Your task to perform on an android device: check the backup settings in the google photos Image 0: 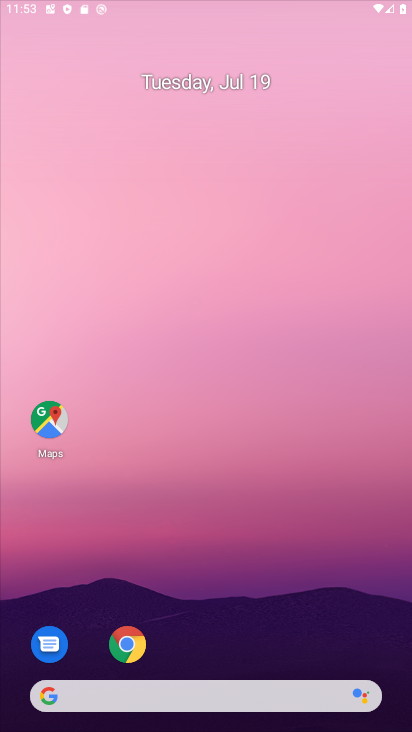
Step 0: press home button
Your task to perform on an android device: check the backup settings in the google photos Image 1: 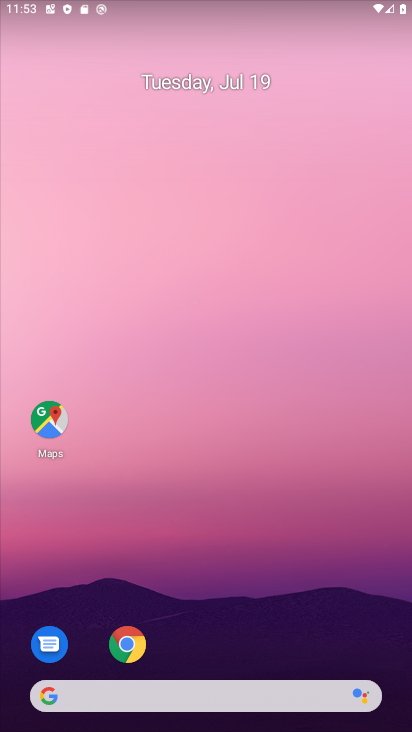
Step 1: drag from (250, 623) to (248, 90)
Your task to perform on an android device: check the backup settings in the google photos Image 2: 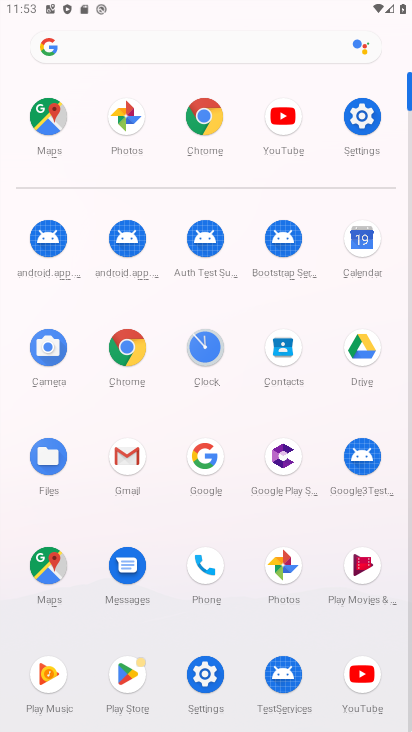
Step 2: click (282, 557)
Your task to perform on an android device: check the backup settings in the google photos Image 3: 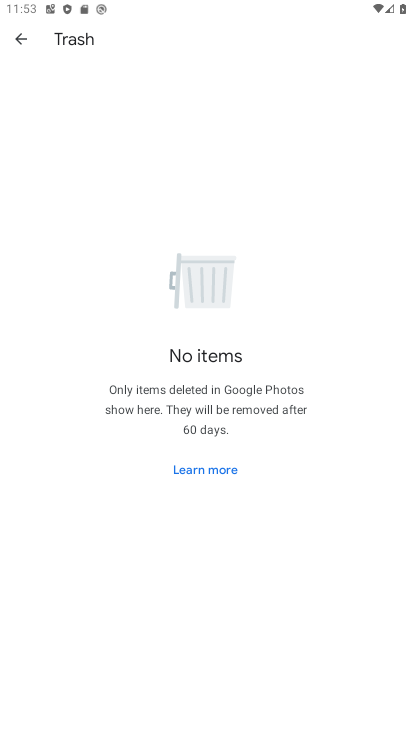
Step 3: click (16, 42)
Your task to perform on an android device: check the backup settings in the google photos Image 4: 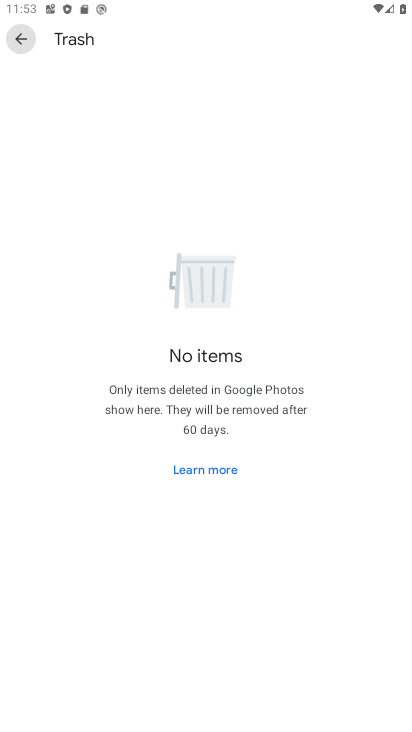
Step 4: click (16, 42)
Your task to perform on an android device: check the backup settings in the google photos Image 5: 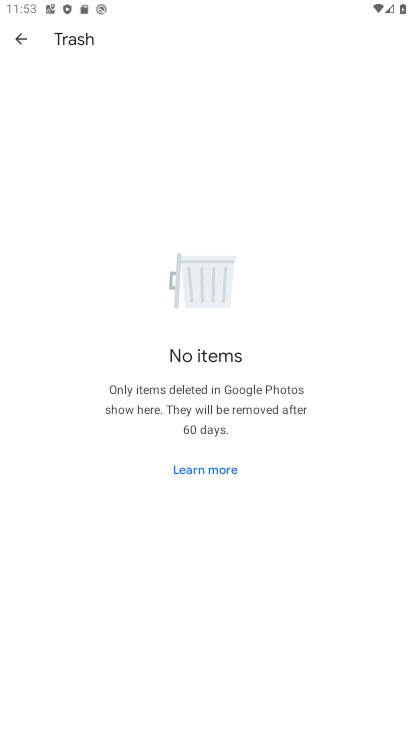
Step 5: click (16, 42)
Your task to perform on an android device: check the backup settings in the google photos Image 6: 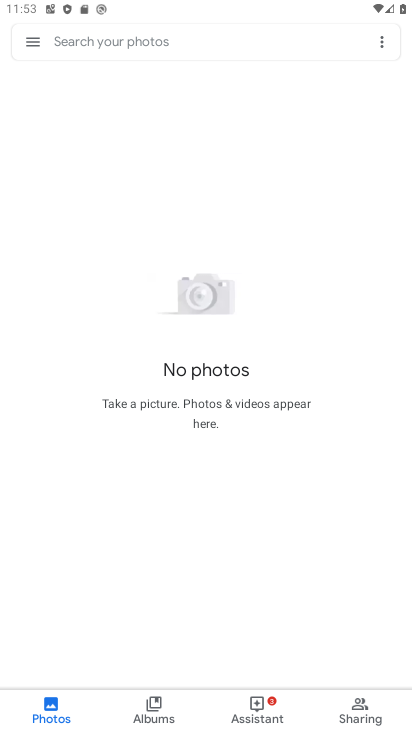
Step 6: click (25, 48)
Your task to perform on an android device: check the backup settings in the google photos Image 7: 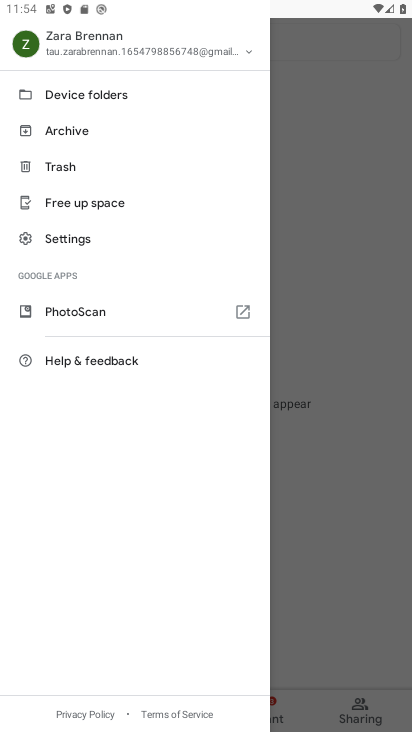
Step 7: click (48, 229)
Your task to perform on an android device: check the backup settings in the google photos Image 8: 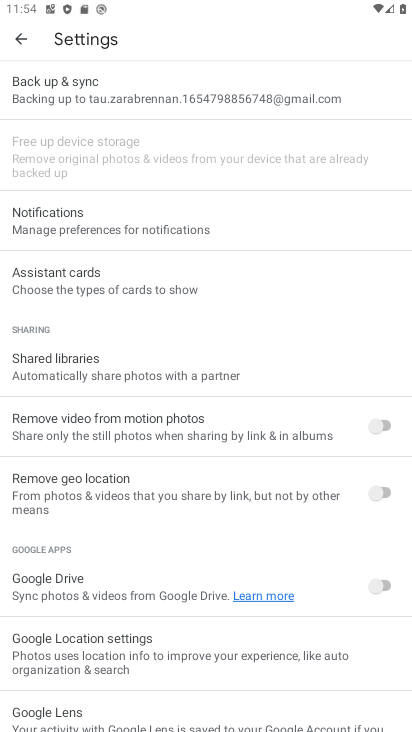
Step 8: click (33, 89)
Your task to perform on an android device: check the backup settings in the google photos Image 9: 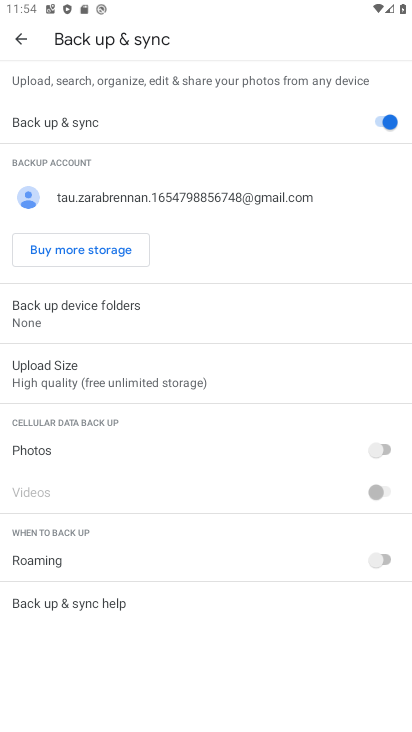
Step 9: task complete